Your task to perform on an android device: Open the phone app and click the voicemail tab. Image 0: 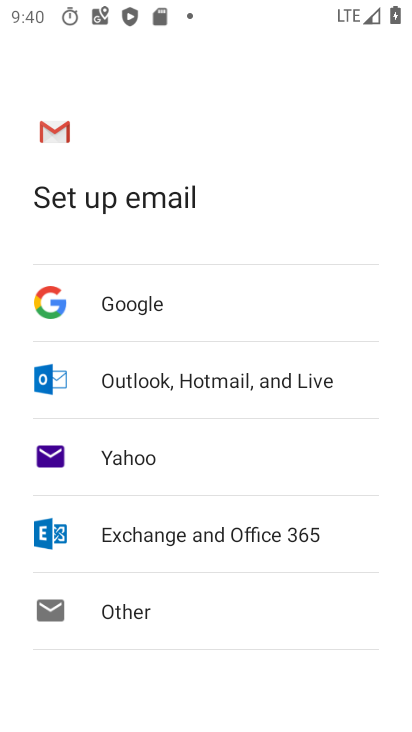
Step 0: press home button
Your task to perform on an android device: Open the phone app and click the voicemail tab. Image 1: 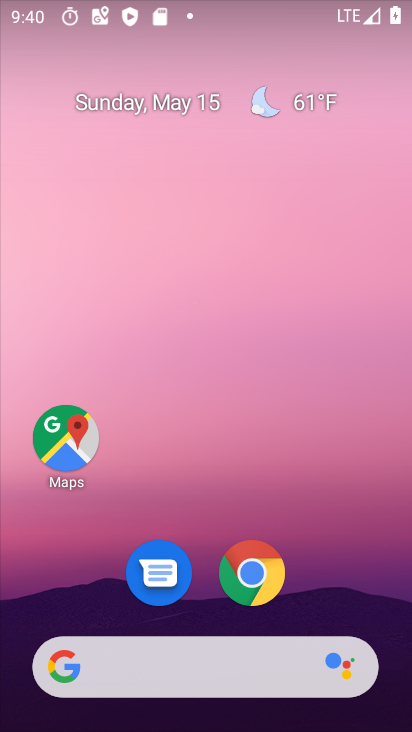
Step 1: drag from (11, 652) to (322, 209)
Your task to perform on an android device: Open the phone app and click the voicemail tab. Image 2: 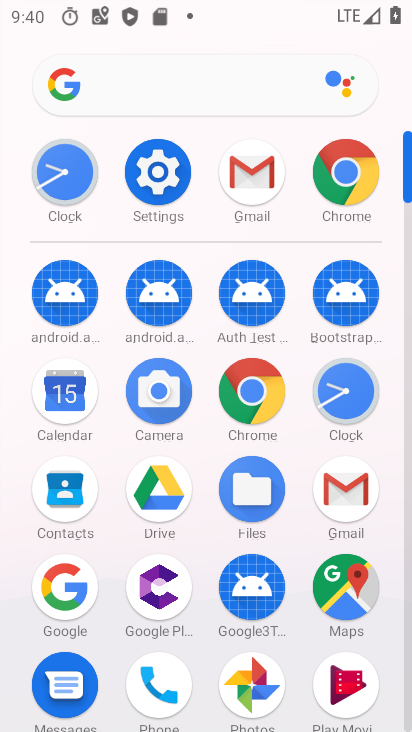
Step 2: click (153, 665)
Your task to perform on an android device: Open the phone app and click the voicemail tab. Image 3: 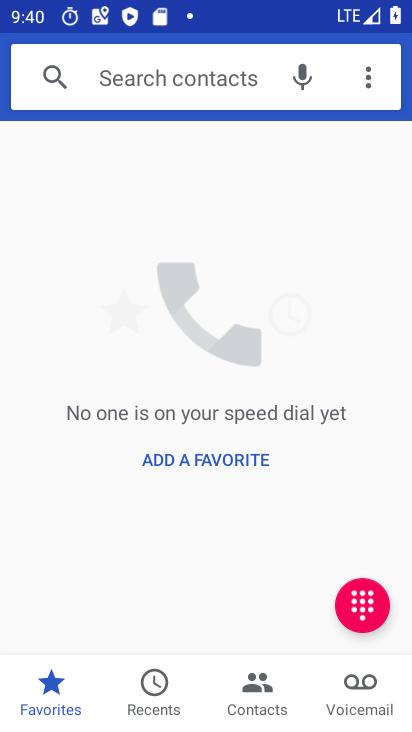
Step 3: click (365, 697)
Your task to perform on an android device: Open the phone app and click the voicemail tab. Image 4: 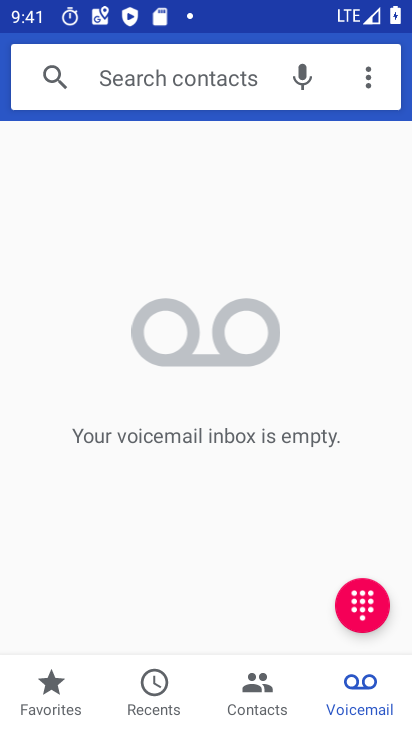
Step 4: task complete